Your task to perform on an android device: set the stopwatch Image 0: 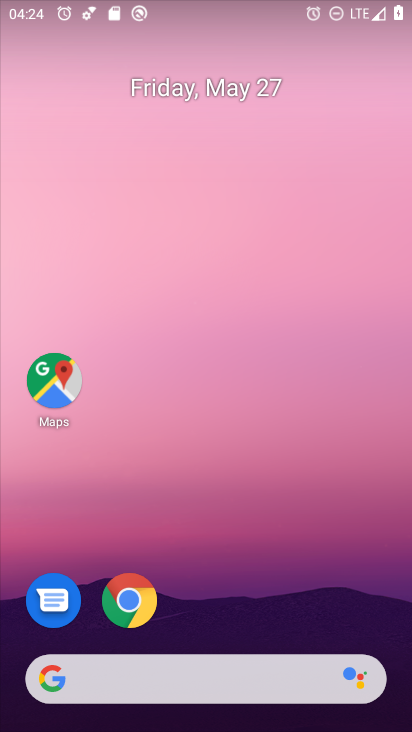
Step 0: drag from (205, 623) to (214, 40)
Your task to perform on an android device: set the stopwatch Image 1: 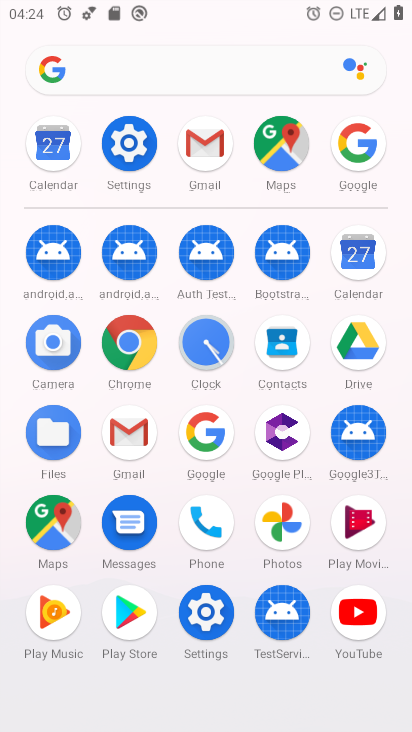
Step 1: click (205, 349)
Your task to perform on an android device: set the stopwatch Image 2: 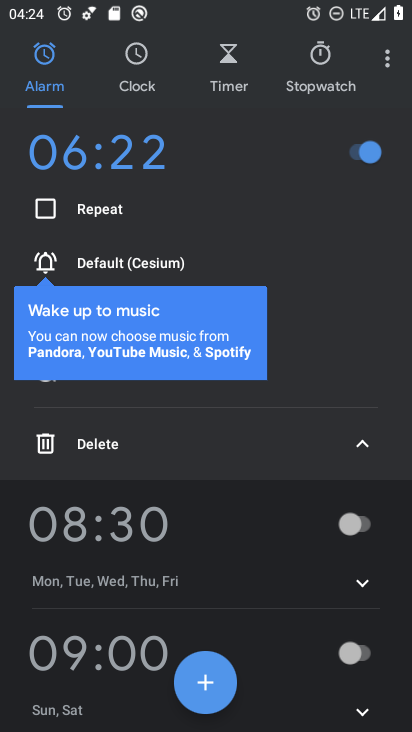
Step 2: click (302, 72)
Your task to perform on an android device: set the stopwatch Image 3: 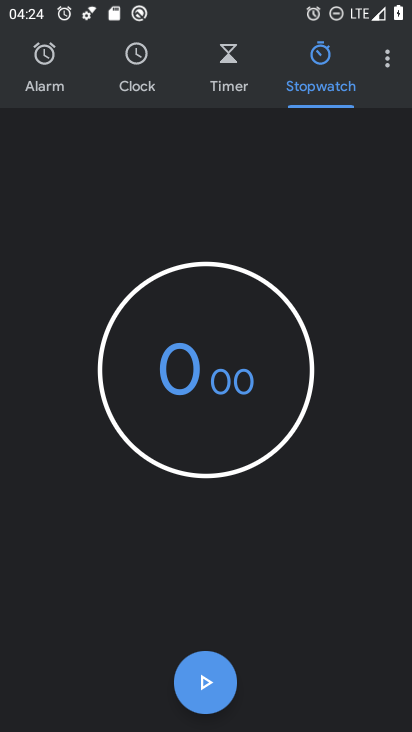
Step 3: click (218, 363)
Your task to perform on an android device: set the stopwatch Image 4: 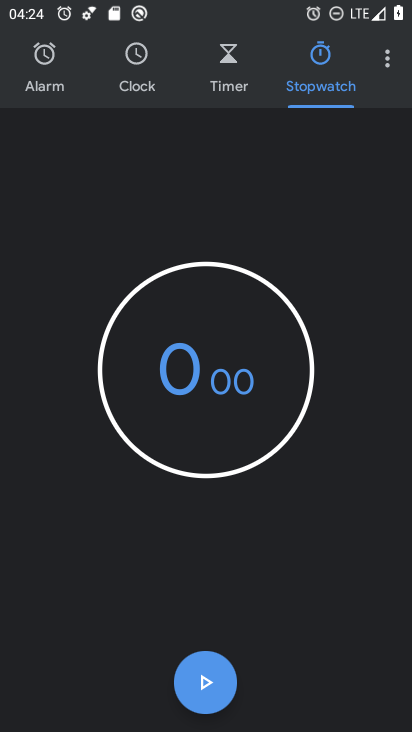
Step 4: type ""
Your task to perform on an android device: set the stopwatch Image 5: 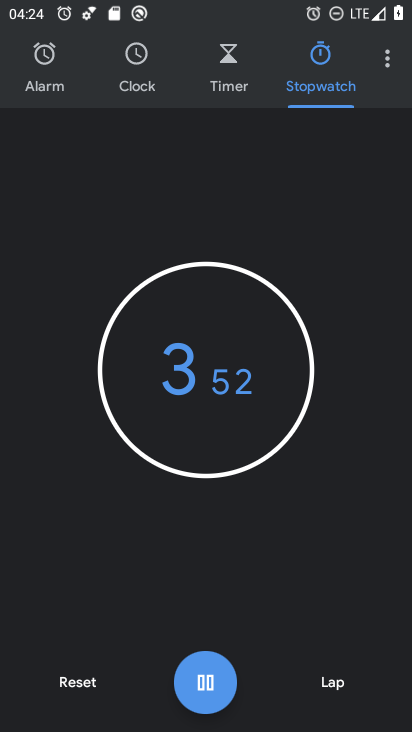
Step 5: type "44"
Your task to perform on an android device: set the stopwatch Image 6: 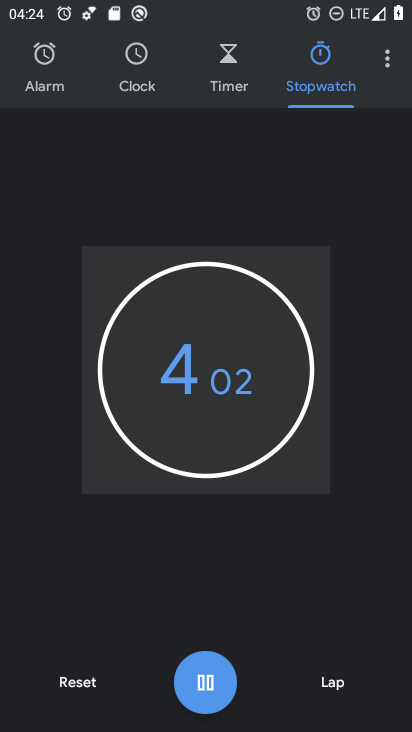
Step 6: type ""
Your task to perform on an android device: set the stopwatch Image 7: 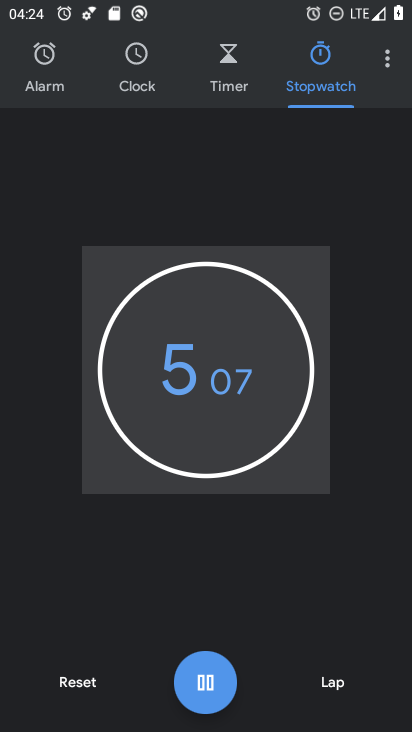
Step 7: task complete